Your task to perform on an android device: Open Youtube and go to the subscriptions tab Image 0: 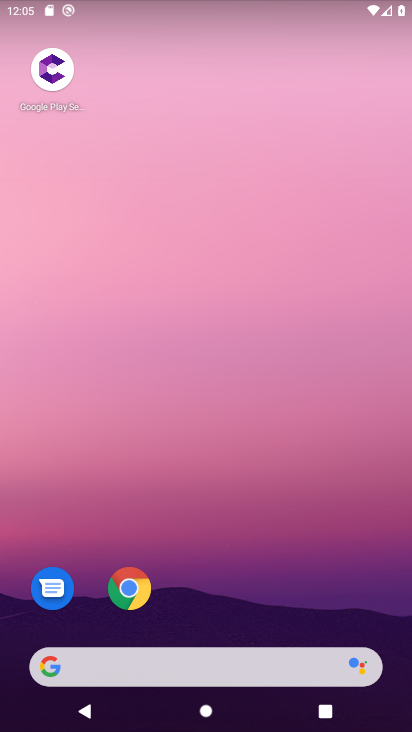
Step 0: drag from (189, 644) to (190, 228)
Your task to perform on an android device: Open Youtube and go to the subscriptions tab Image 1: 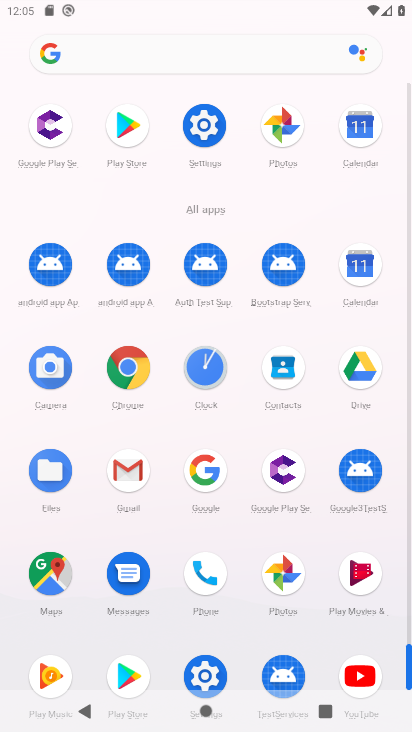
Step 1: click (362, 668)
Your task to perform on an android device: Open Youtube and go to the subscriptions tab Image 2: 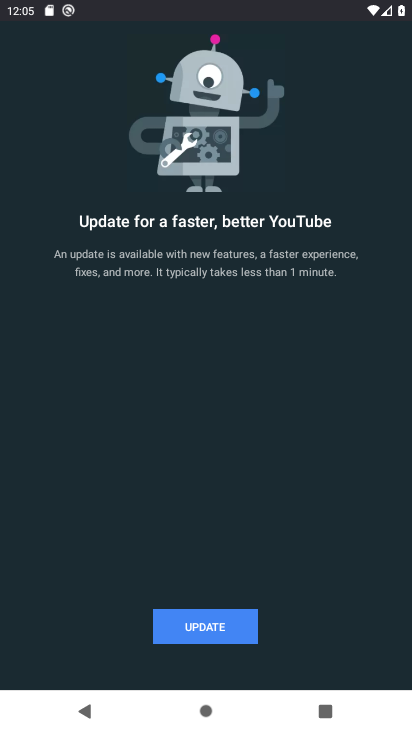
Step 2: click (180, 631)
Your task to perform on an android device: Open Youtube and go to the subscriptions tab Image 3: 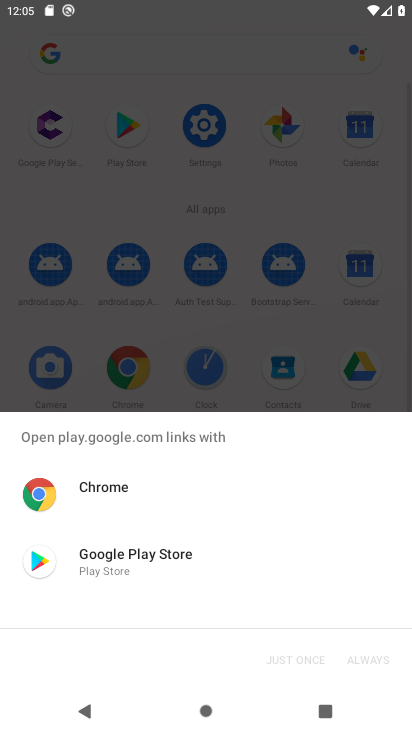
Step 3: click (95, 550)
Your task to perform on an android device: Open Youtube and go to the subscriptions tab Image 4: 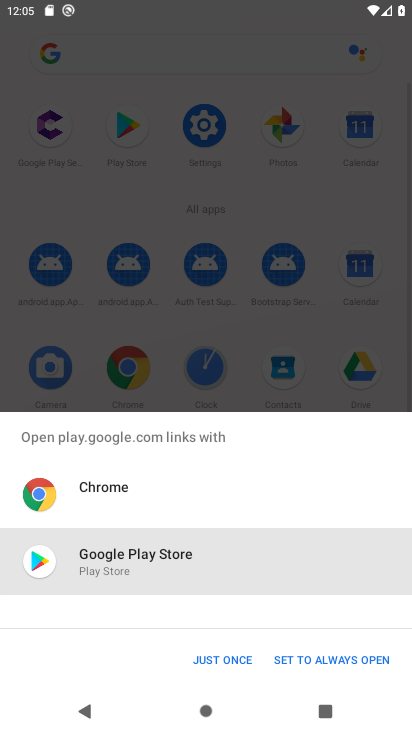
Step 4: click (293, 655)
Your task to perform on an android device: Open Youtube and go to the subscriptions tab Image 5: 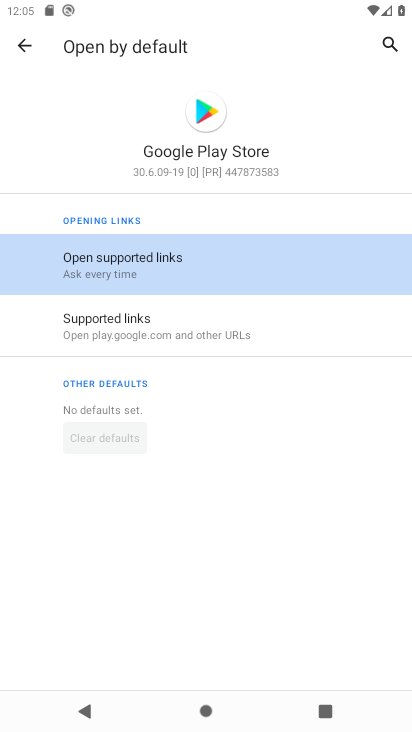
Step 5: click (199, 144)
Your task to perform on an android device: Open Youtube and go to the subscriptions tab Image 6: 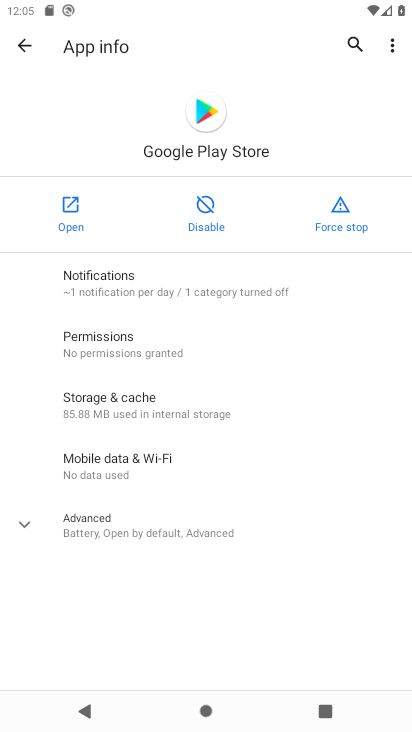
Step 6: click (71, 194)
Your task to perform on an android device: Open Youtube and go to the subscriptions tab Image 7: 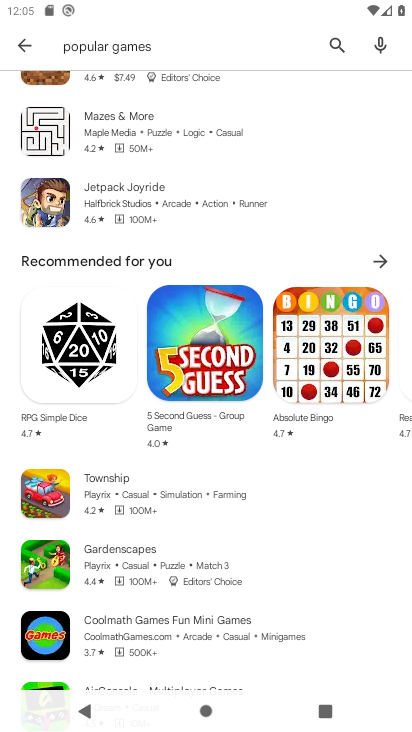
Step 7: drag from (195, 118) to (222, 569)
Your task to perform on an android device: Open Youtube and go to the subscriptions tab Image 8: 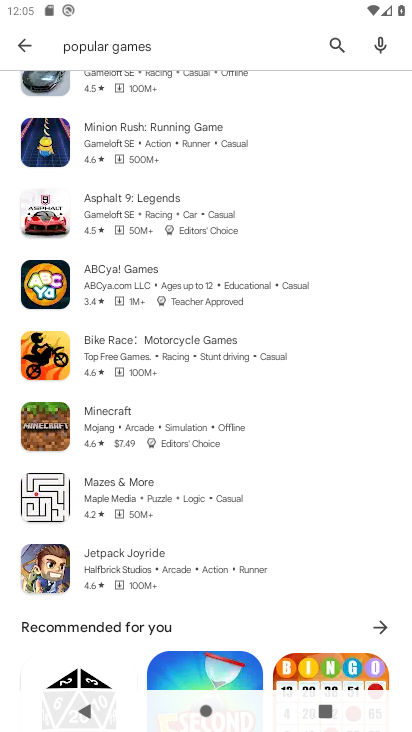
Step 8: drag from (286, 134) to (311, 586)
Your task to perform on an android device: Open Youtube and go to the subscriptions tab Image 9: 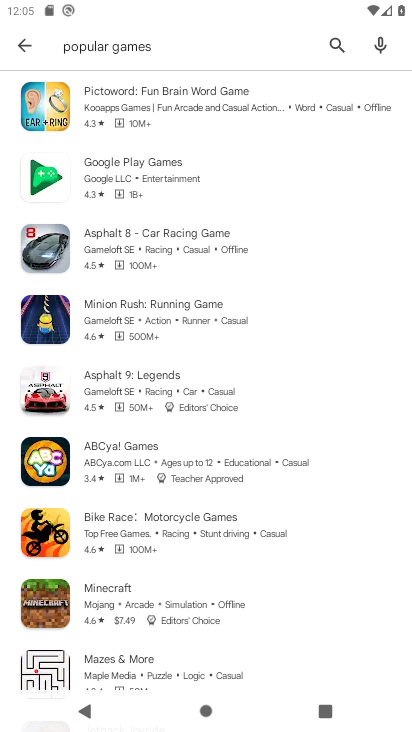
Step 9: click (23, 50)
Your task to perform on an android device: Open Youtube and go to the subscriptions tab Image 10: 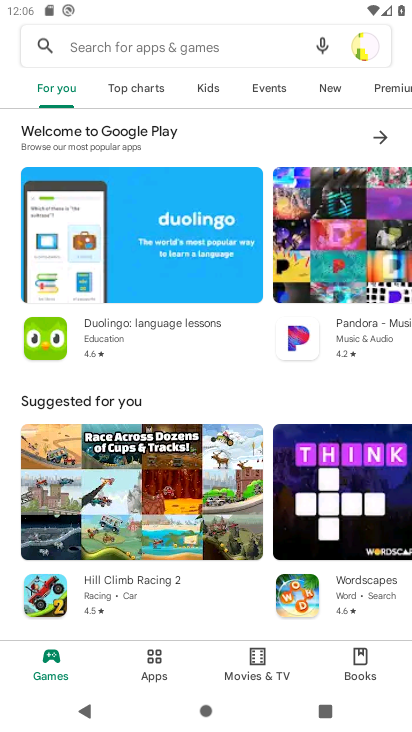
Step 10: click (206, 43)
Your task to perform on an android device: Open Youtube and go to the subscriptions tab Image 11: 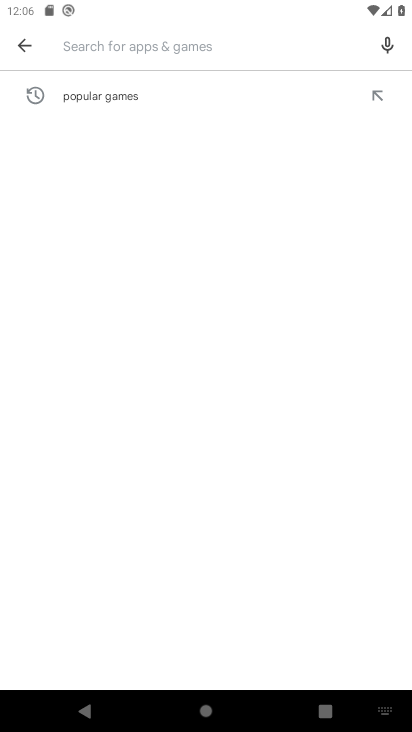
Step 11: type "you tube"
Your task to perform on an android device: Open Youtube and go to the subscriptions tab Image 12: 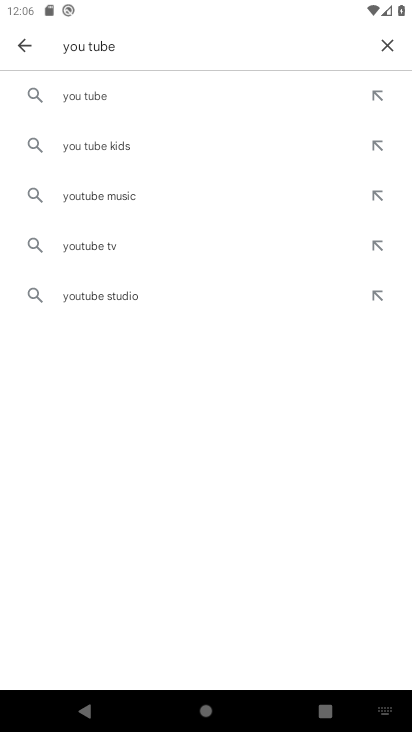
Step 12: click (60, 105)
Your task to perform on an android device: Open Youtube and go to the subscriptions tab Image 13: 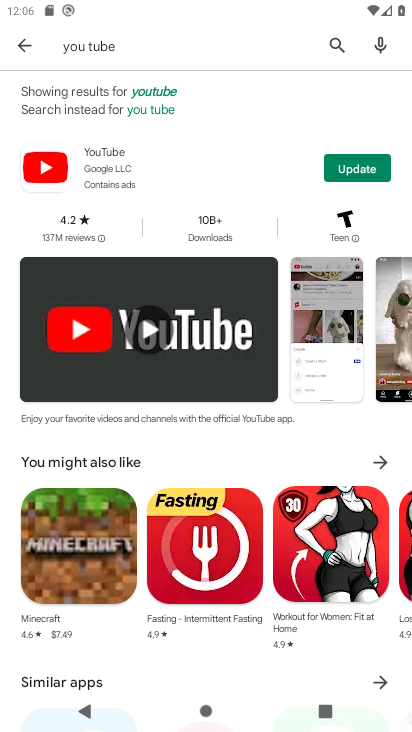
Step 13: click (377, 168)
Your task to perform on an android device: Open Youtube and go to the subscriptions tab Image 14: 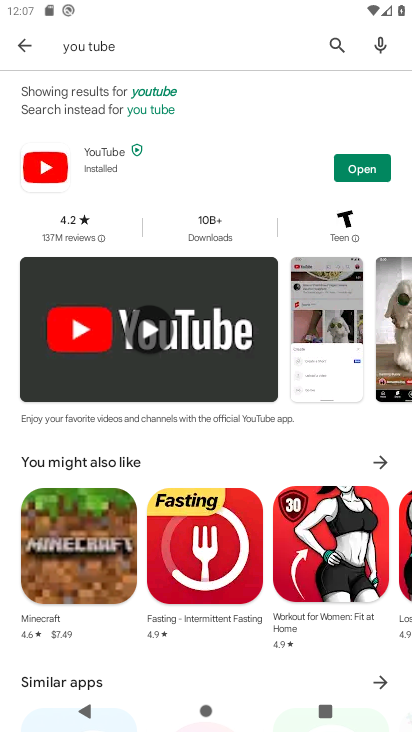
Step 14: click (348, 168)
Your task to perform on an android device: Open Youtube and go to the subscriptions tab Image 15: 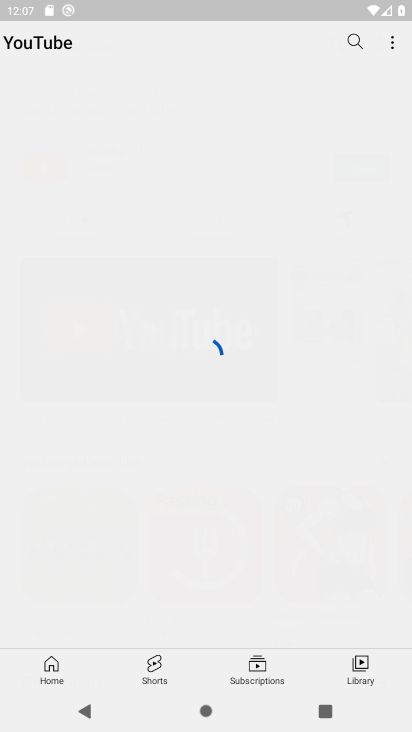
Step 15: click (382, 168)
Your task to perform on an android device: Open Youtube and go to the subscriptions tab Image 16: 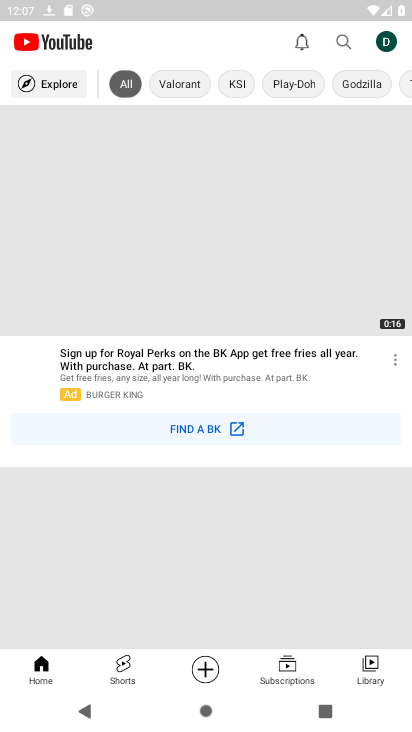
Step 16: click (274, 675)
Your task to perform on an android device: Open Youtube and go to the subscriptions tab Image 17: 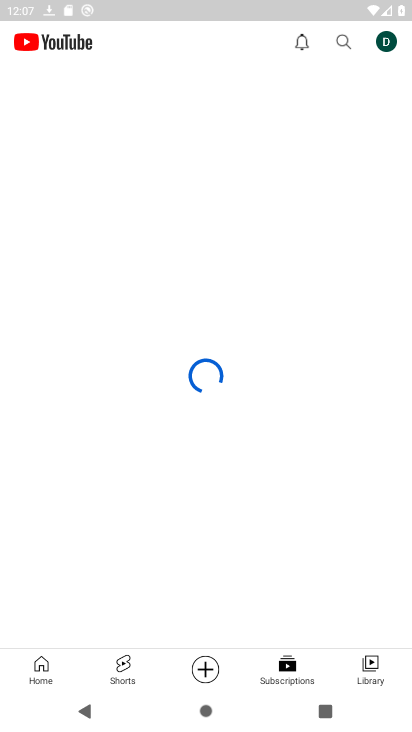
Step 17: task complete